Your task to perform on an android device: Open Chrome and go to the settings page Image 0: 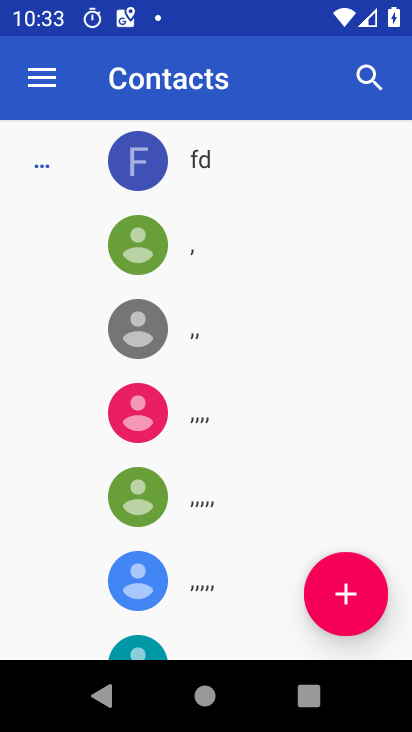
Step 0: press home button
Your task to perform on an android device: Open Chrome and go to the settings page Image 1: 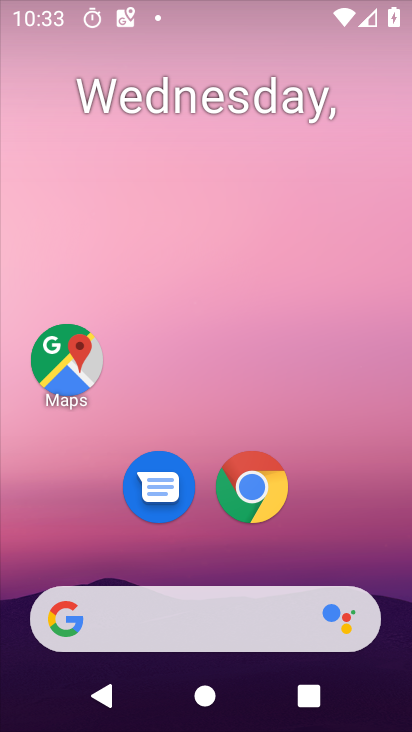
Step 1: drag from (207, 668) to (378, 18)
Your task to perform on an android device: Open Chrome and go to the settings page Image 2: 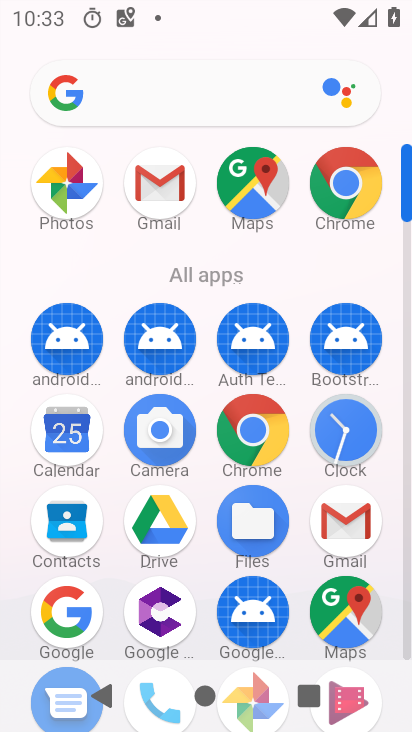
Step 2: click (244, 423)
Your task to perform on an android device: Open Chrome and go to the settings page Image 3: 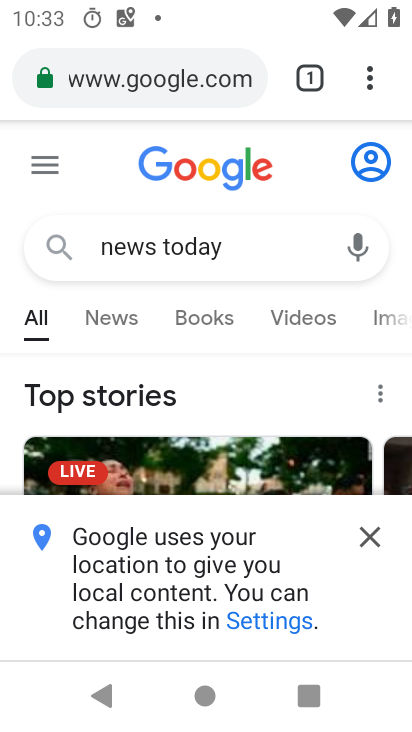
Step 3: task complete